Your task to perform on an android device: open app "Calculator" (install if not already installed) Image 0: 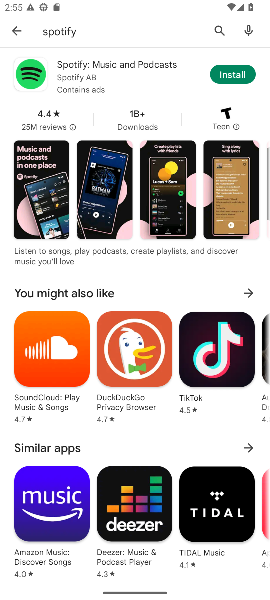
Step 0: click (244, 68)
Your task to perform on an android device: open app "Calculator" (install if not already installed) Image 1: 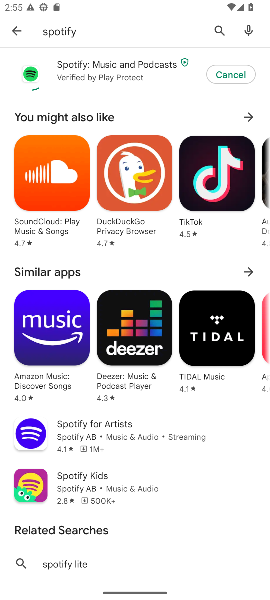
Step 1: click (209, 31)
Your task to perform on an android device: open app "Calculator" (install if not already installed) Image 2: 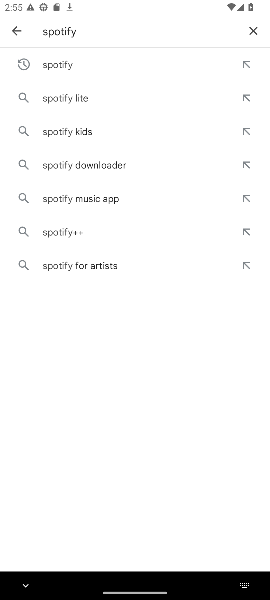
Step 2: click (249, 31)
Your task to perform on an android device: open app "Calculator" (install if not already installed) Image 3: 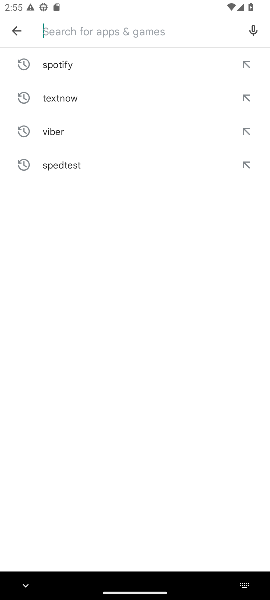
Step 3: type "calculator"
Your task to perform on an android device: open app "Calculator" (install if not already installed) Image 4: 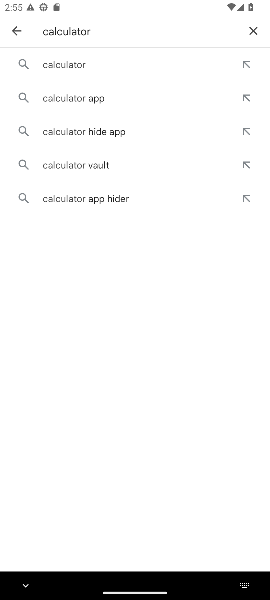
Step 4: click (66, 59)
Your task to perform on an android device: open app "Calculator" (install if not already installed) Image 5: 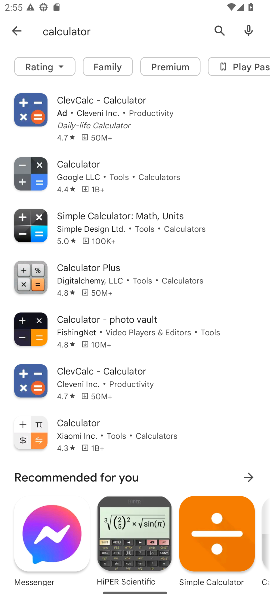
Step 5: click (121, 168)
Your task to perform on an android device: open app "Calculator" (install if not already installed) Image 6: 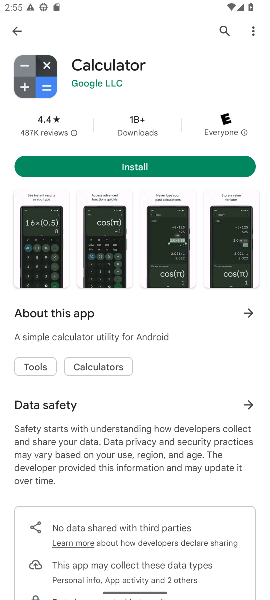
Step 6: click (148, 169)
Your task to perform on an android device: open app "Calculator" (install if not already installed) Image 7: 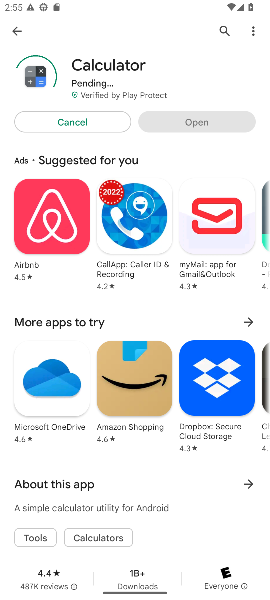
Step 7: task complete